Your task to perform on an android device: change your default location settings in chrome Image 0: 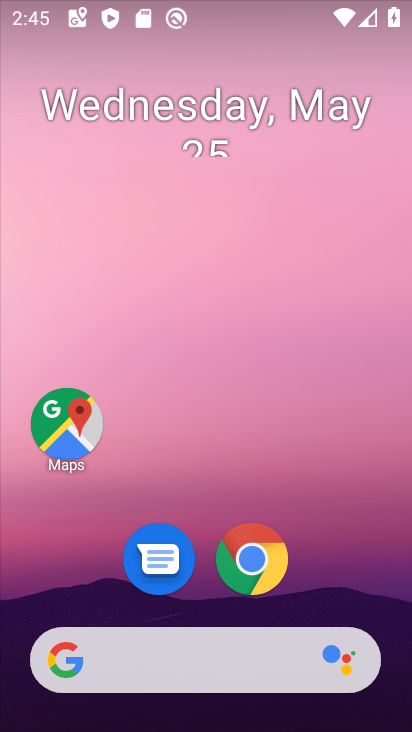
Step 0: press home button
Your task to perform on an android device: change your default location settings in chrome Image 1: 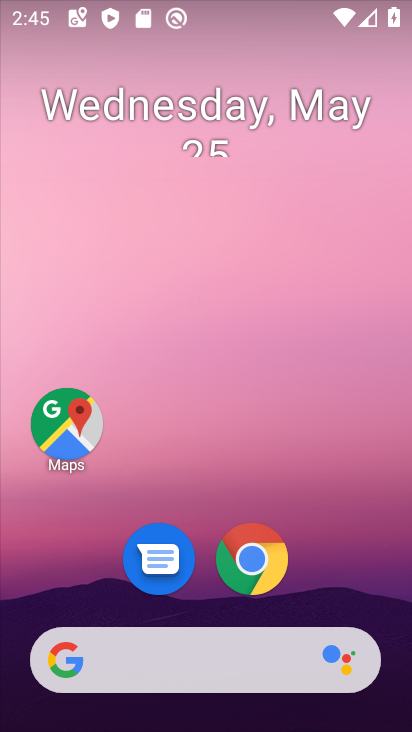
Step 1: click (249, 551)
Your task to perform on an android device: change your default location settings in chrome Image 2: 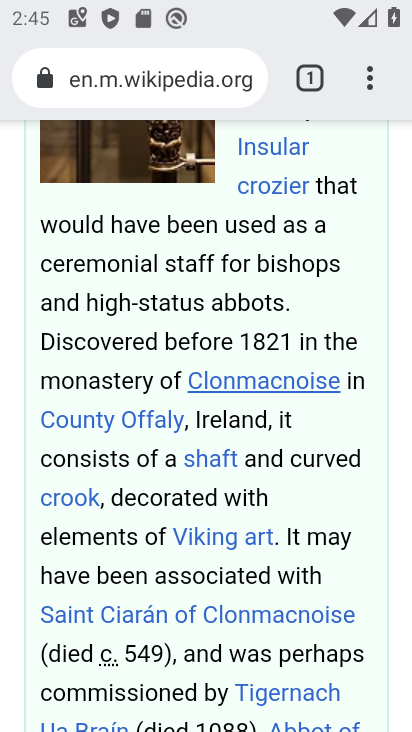
Step 2: click (371, 63)
Your task to perform on an android device: change your default location settings in chrome Image 3: 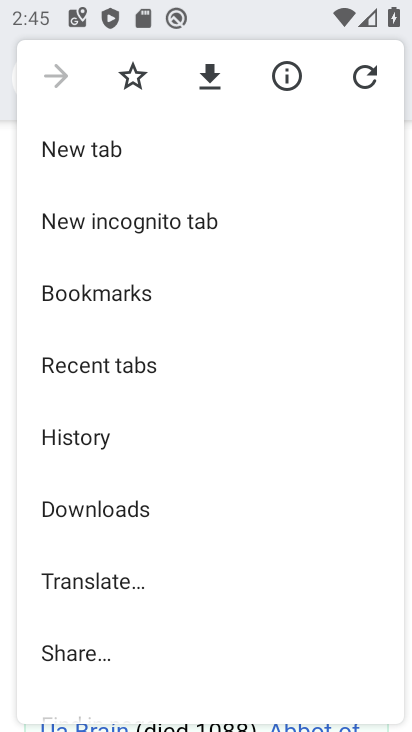
Step 3: drag from (198, 660) to (222, 109)
Your task to perform on an android device: change your default location settings in chrome Image 4: 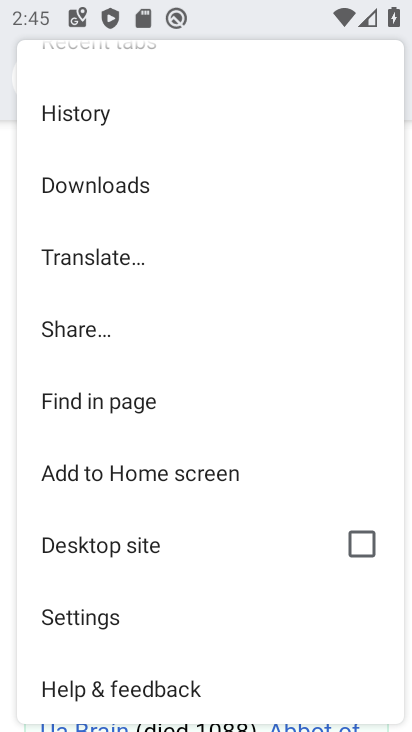
Step 4: click (132, 607)
Your task to perform on an android device: change your default location settings in chrome Image 5: 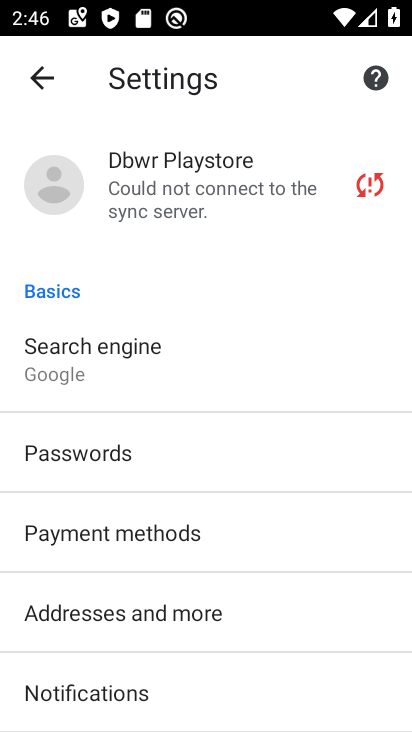
Step 5: drag from (236, 641) to (226, 242)
Your task to perform on an android device: change your default location settings in chrome Image 6: 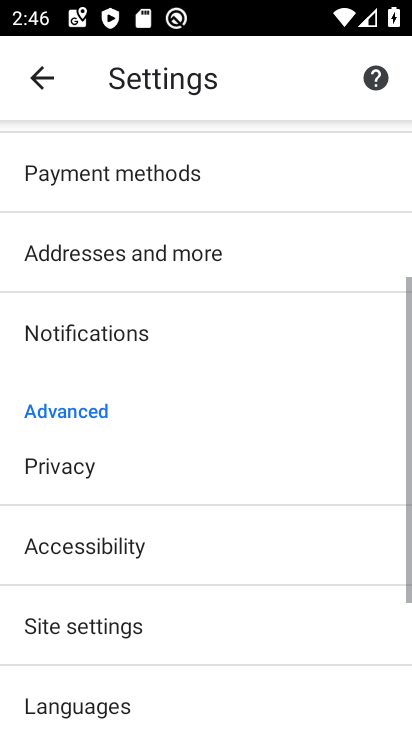
Step 6: click (224, 206)
Your task to perform on an android device: change your default location settings in chrome Image 7: 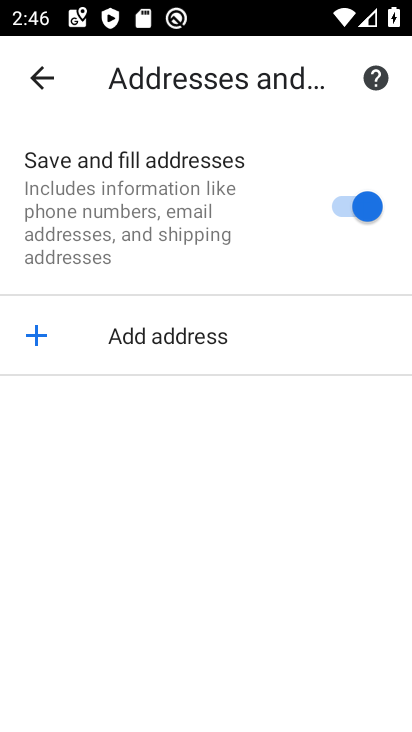
Step 7: click (39, 80)
Your task to perform on an android device: change your default location settings in chrome Image 8: 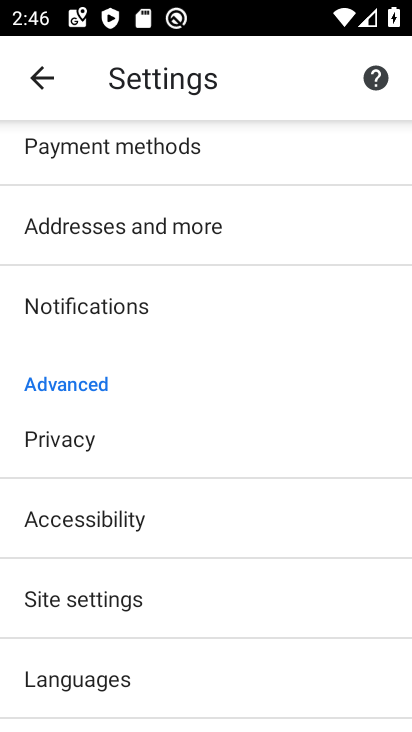
Step 8: click (173, 605)
Your task to perform on an android device: change your default location settings in chrome Image 9: 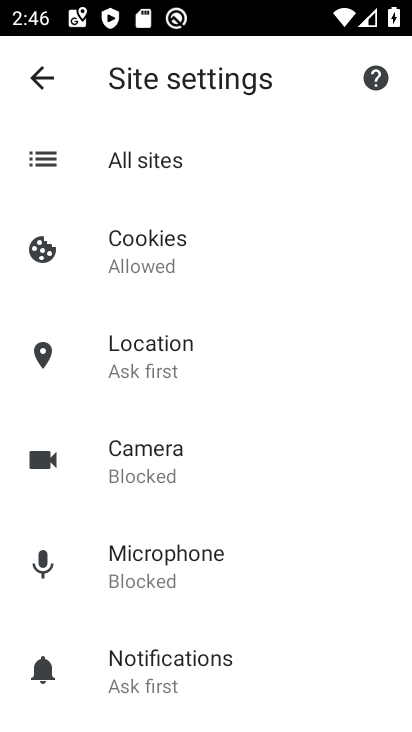
Step 9: click (198, 351)
Your task to perform on an android device: change your default location settings in chrome Image 10: 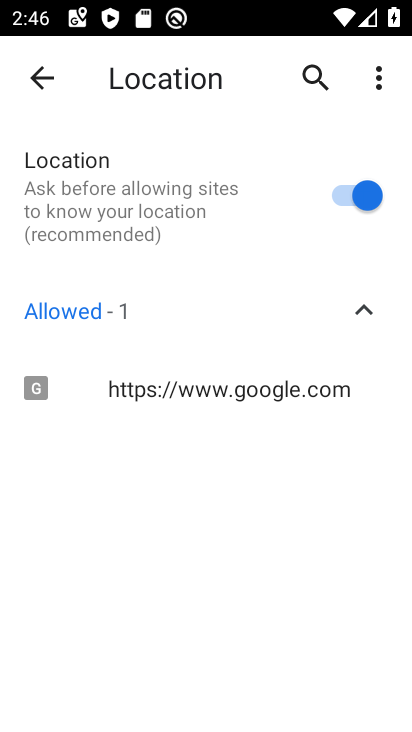
Step 10: click (345, 193)
Your task to perform on an android device: change your default location settings in chrome Image 11: 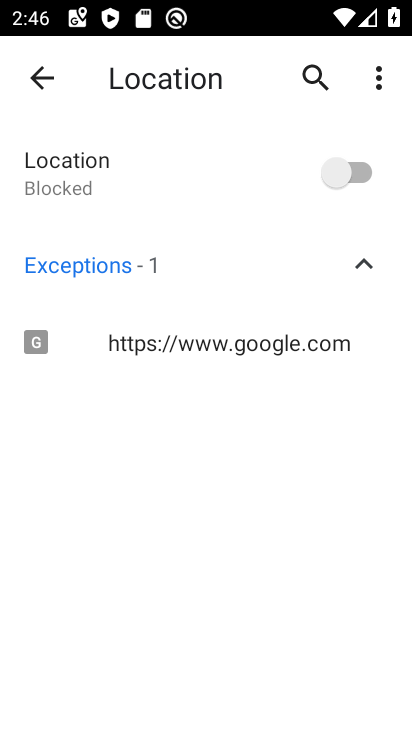
Step 11: task complete